Your task to perform on an android device: Go to Google Image 0: 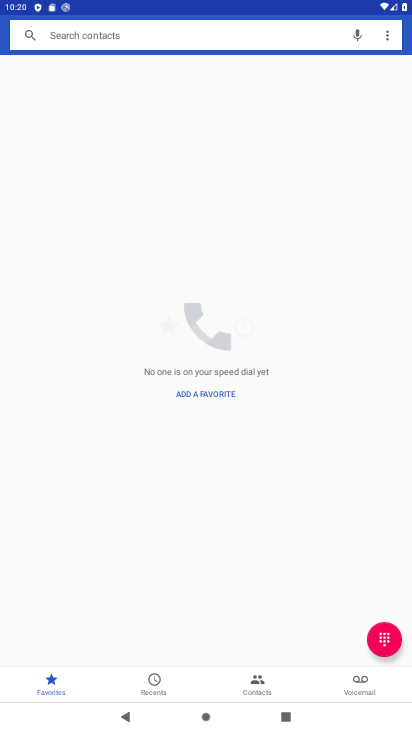
Step 0: press home button
Your task to perform on an android device: Go to Google Image 1: 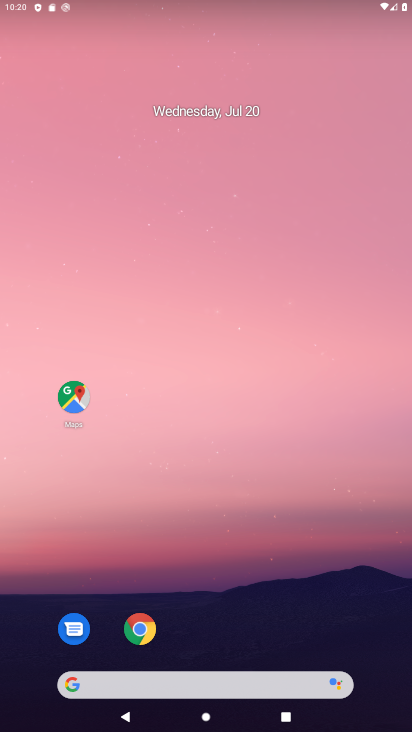
Step 1: drag from (225, 607) to (239, 0)
Your task to perform on an android device: Go to Google Image 2: 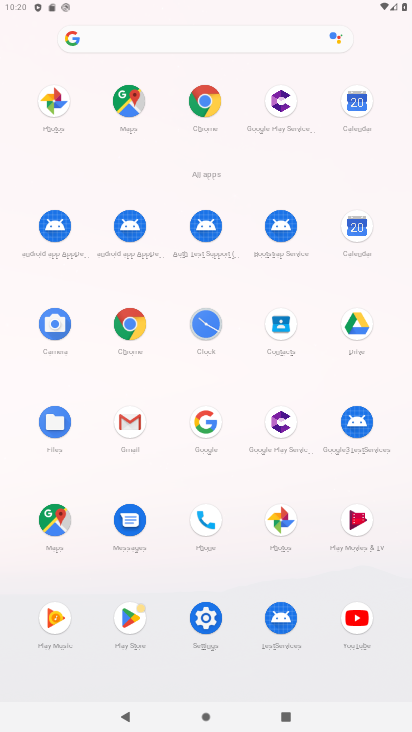
Step 2: click (198, 439)
Your task to perform on an android device: Go to Google Image 3: 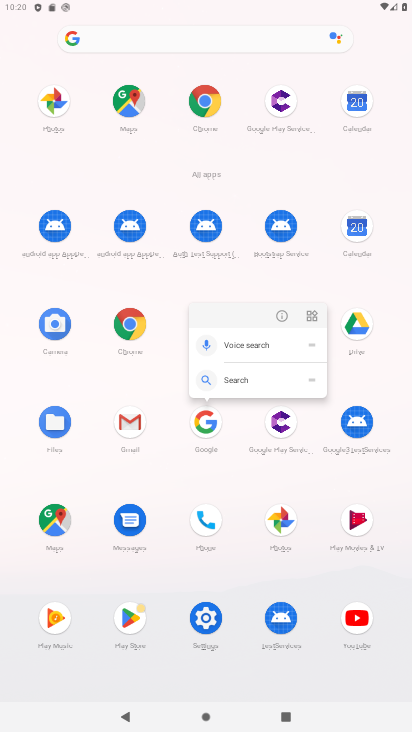
Step 3: click (198, 439)
Your task to perform on an android device: Go to Google Image 4: 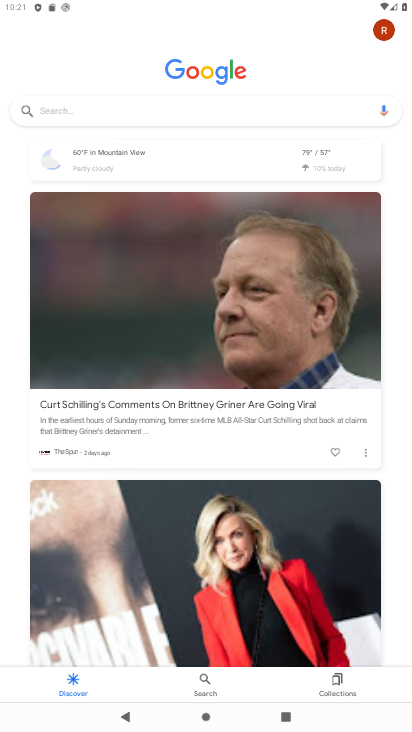
Step 4: task complete